Your task to perform on an android device: toggle airplane mode Image 0: 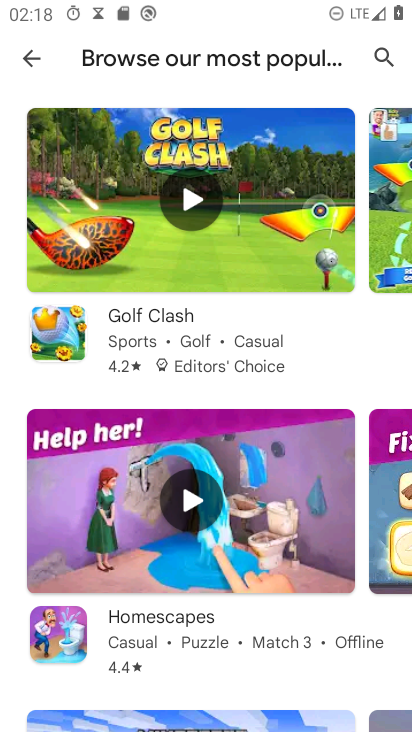
Step 0: press home button
Your task to perform on an android device: toggle airplane mode Image 1: 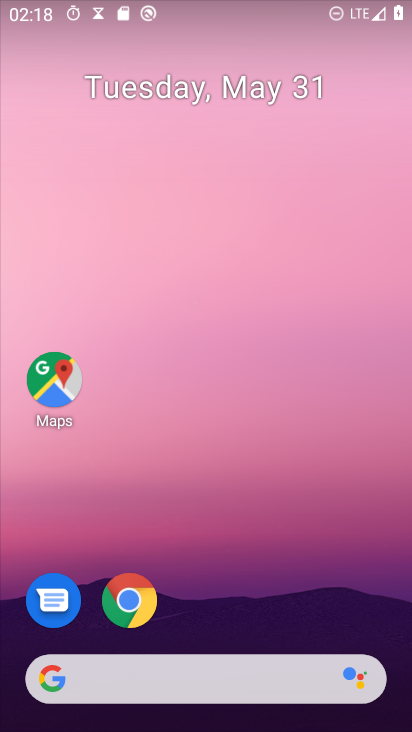
Step 1: drag from (206, 730) to (186, 57)
Your task to perform on an android device: toggle airplane mode Image 2: 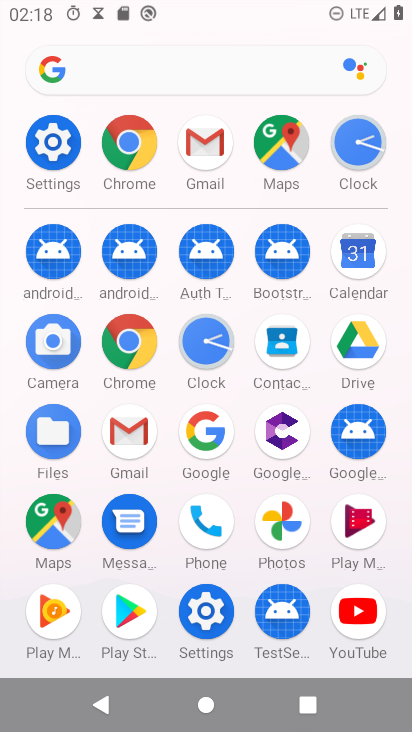
Step 2: click (52, 134)
Your task to perform on an android device: toggle airplane mode Image 3: 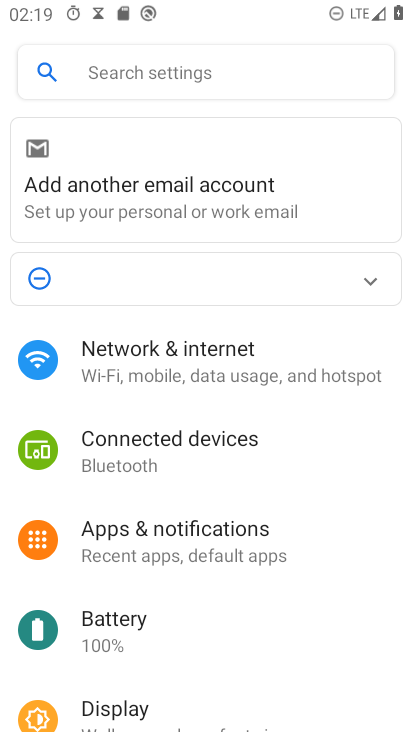
Step 3: click (153, 357)
Your task to perform on an android device: toggle airplane mode Image 4: 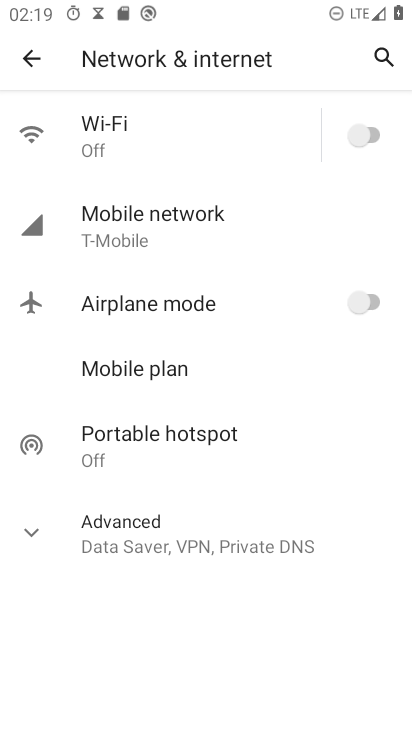
Step 4: click (366, 300)
Your task to perform on an android device: toggle airplane mode Image 5: 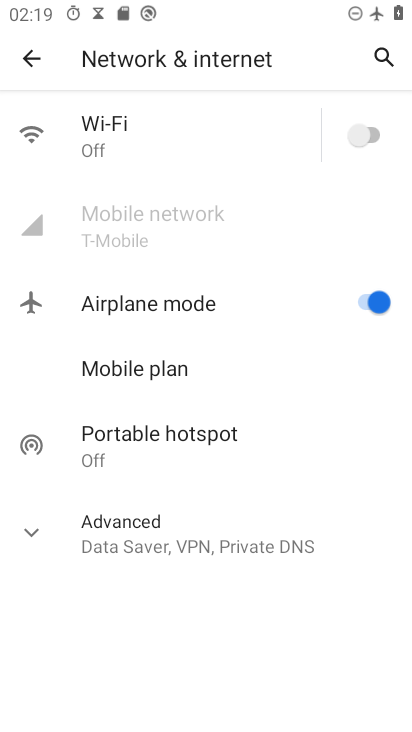
Step 5: task complete